Your task to perform on an android device: open chrome and create a bookmark for the current page Image 0: 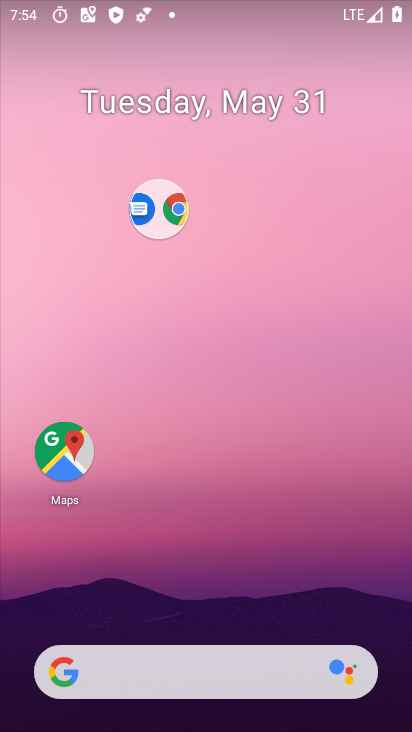
Step 0: drag from (230, 609) to (208, 106)
Your task to perform on an android device: open chrome and create a bookmark for the current page Image 1: 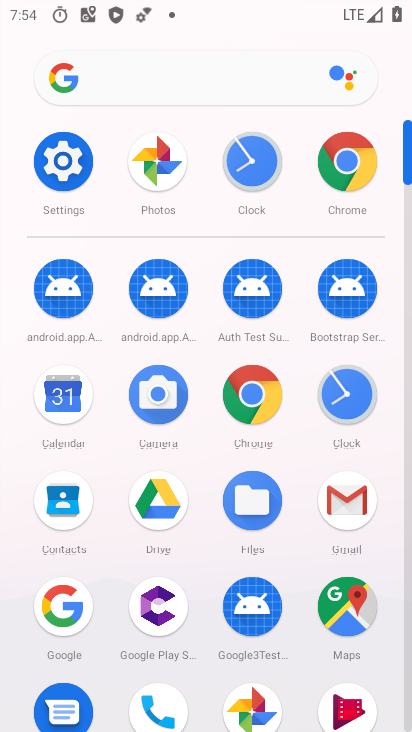
Step 1: click (353, 167)
Your task to perform on an android device: open chrome and create a bookmark for the current page Image 2: 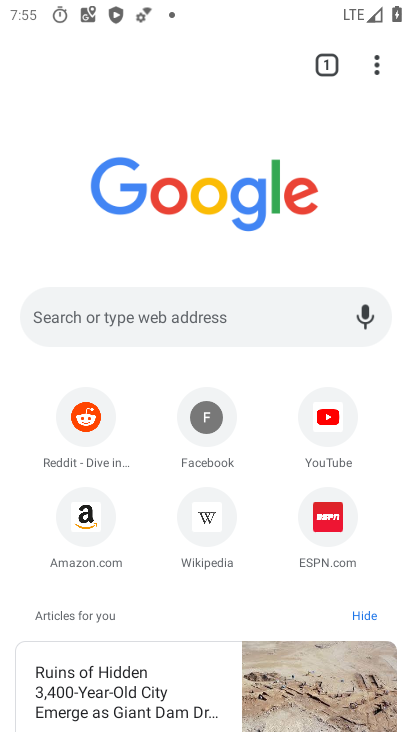
Step 2: click (373, 73)
Your task to perform on an android device: open chrome and create a bookmark for the current page Image 3: 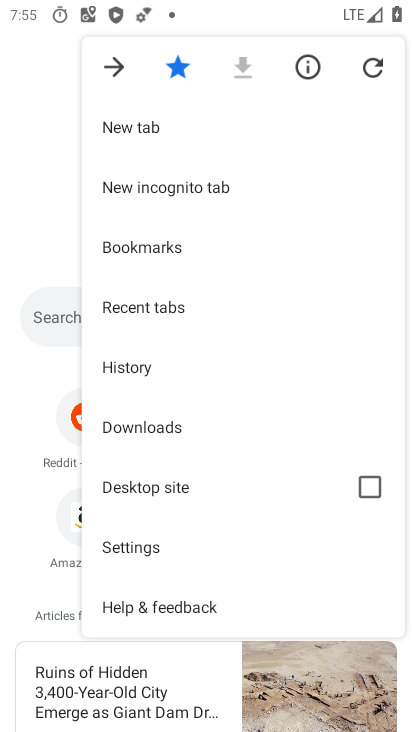
Step 3: task complete